Your task to perform on an android device: Open the calculator app Image 0: 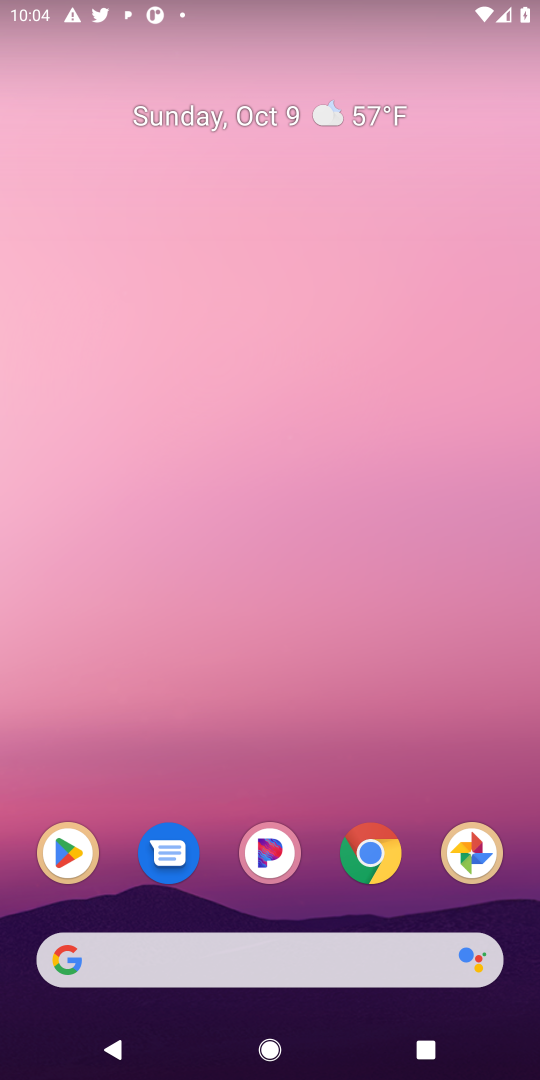
Step 0: drag from (290, 898) to (276, 63)
Your task to perform on an android device: Open the calculator app Image 1: 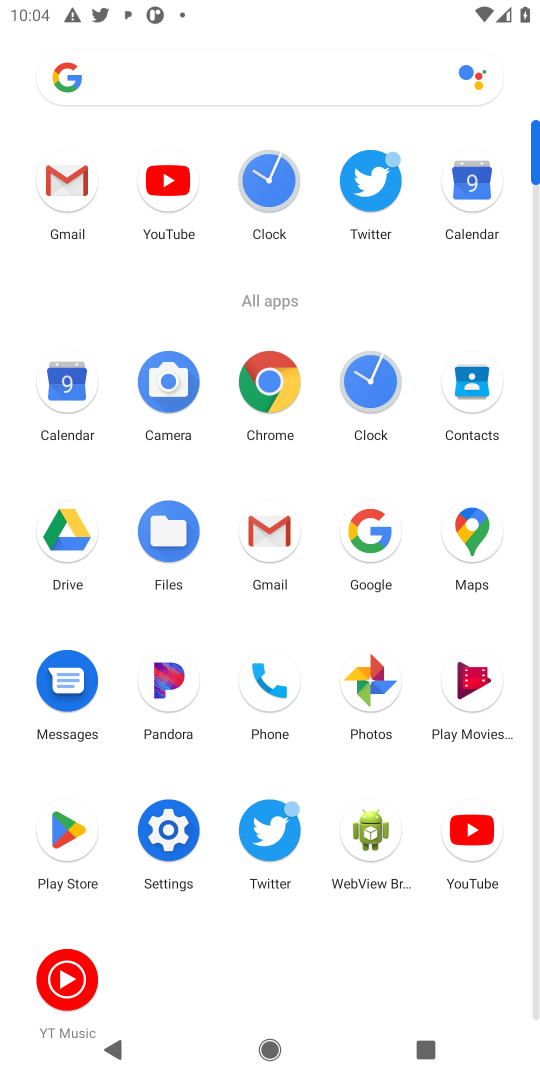
Step 1: drag from (291, 930) to (298, 882)
Your task to perform on an android device: Open the calculator app Image 2: 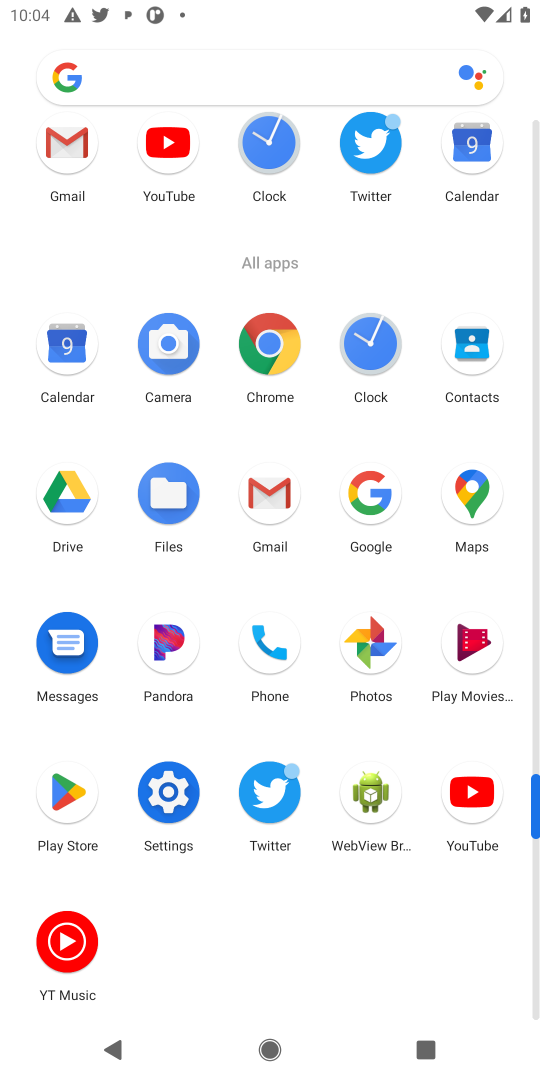
Step 2: click (82, 795)
Your task to perform on an android device: Open the calculator app Image 3: 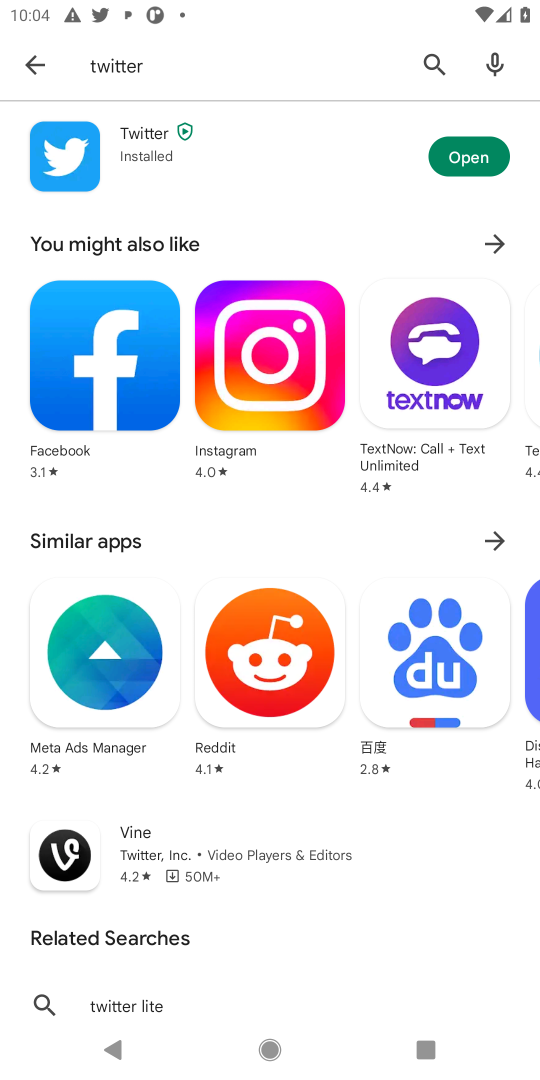
Step 3: click (432, 62)
Your task to perform on an android device: Open the calculator app Image 4: 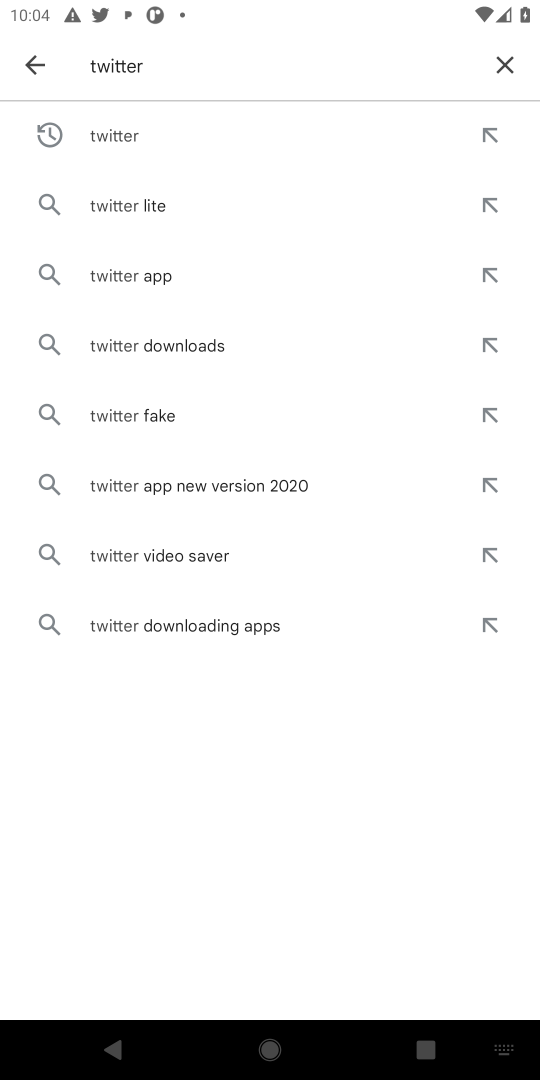
Step 4: click (504, 58)
Your task to perform on an android device: Open the calculator app Image 5: 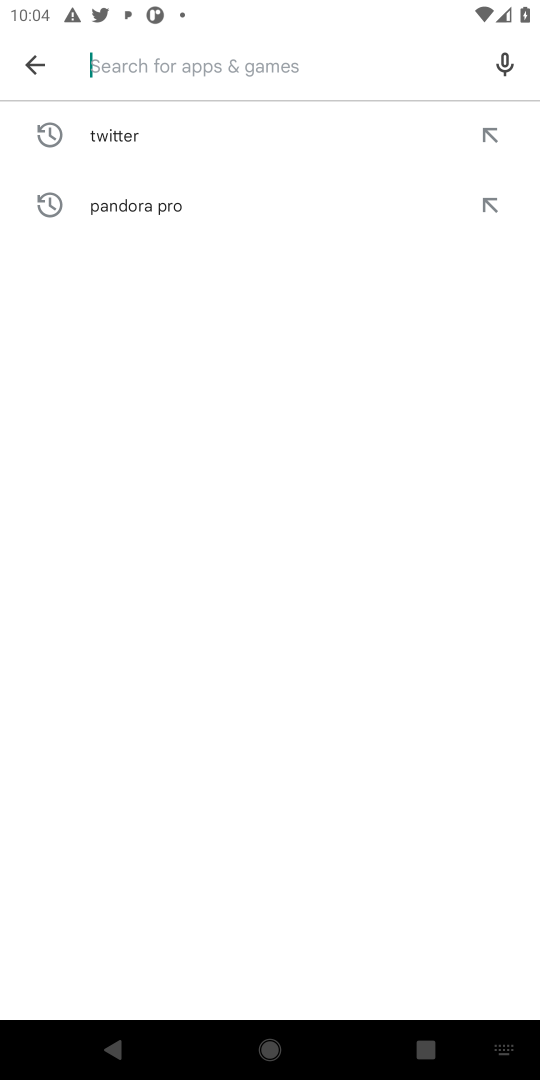
Step 5: click (311, 78)
Your task to perform on an android device: Open the calculator app Image 6: 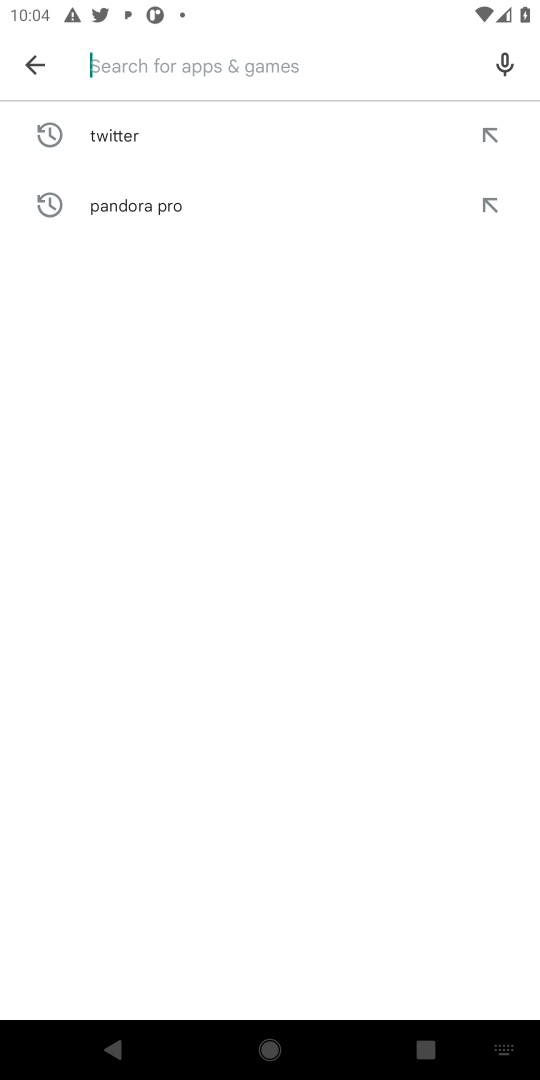
Step 6: type "calculator"
Your task to perform on an android device: Open the calculator app Image 7: 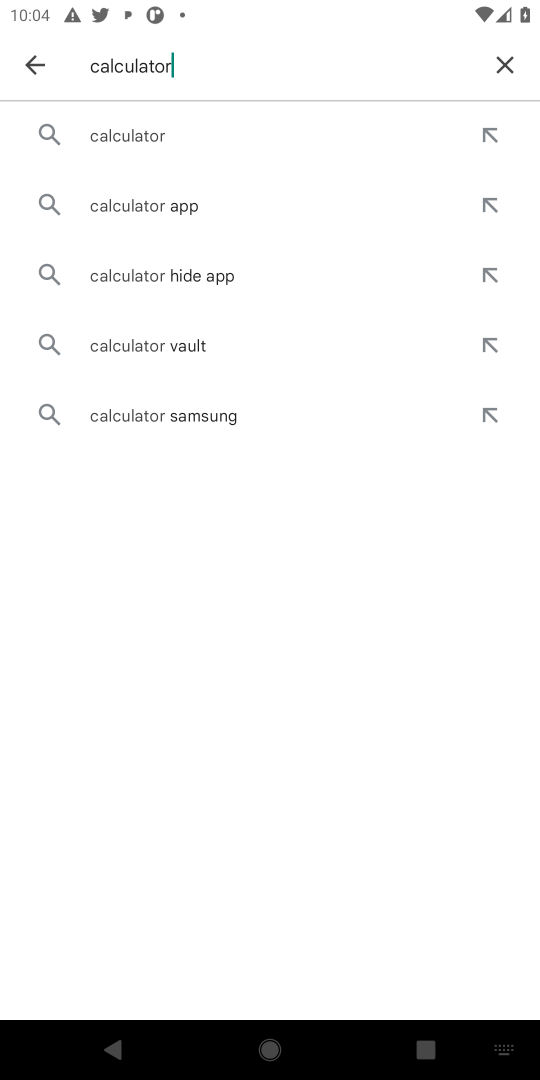
Step 7: type ""
Your task to perform on an android device: Open the calculator app Image 8: 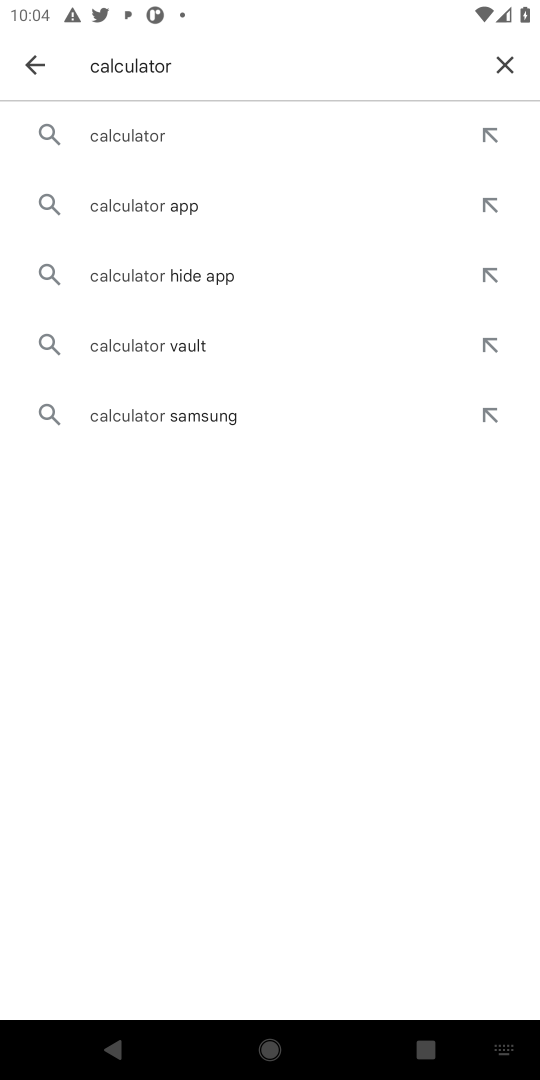
Step 8: click (148, 204)
Your task to perform on an android device: Open the calculator app Image 9: 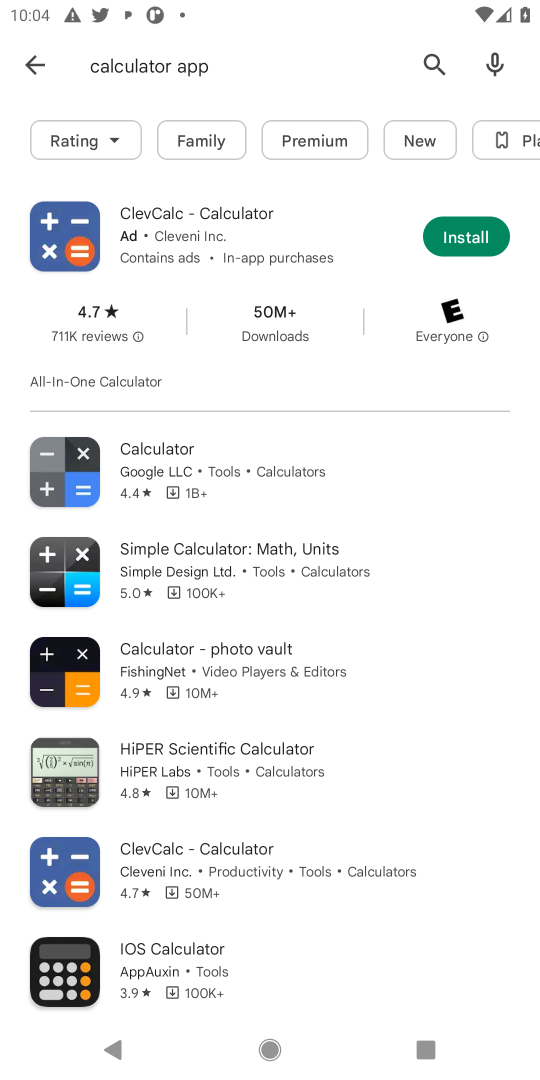
Step 9: click (205, 470)
Your task to perform on an android device: Open the calculator app Image 10: 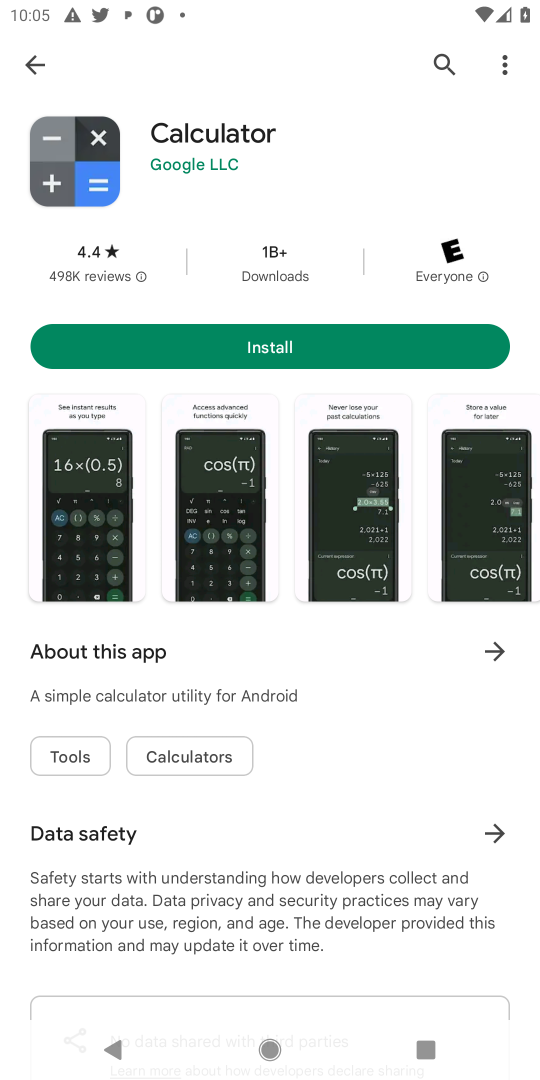
Step 10: click (255, 349)
Your task to perform on an android device: Open the calculator app Image 11: 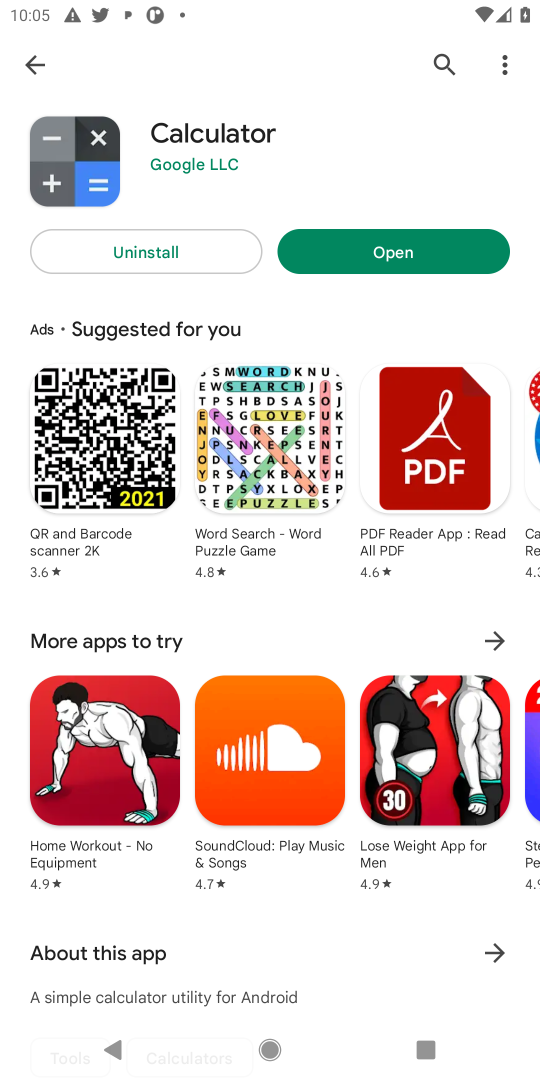
Step 11: click (409, 258)
Your task to perform on an android device: Open the calculator app Image 12: 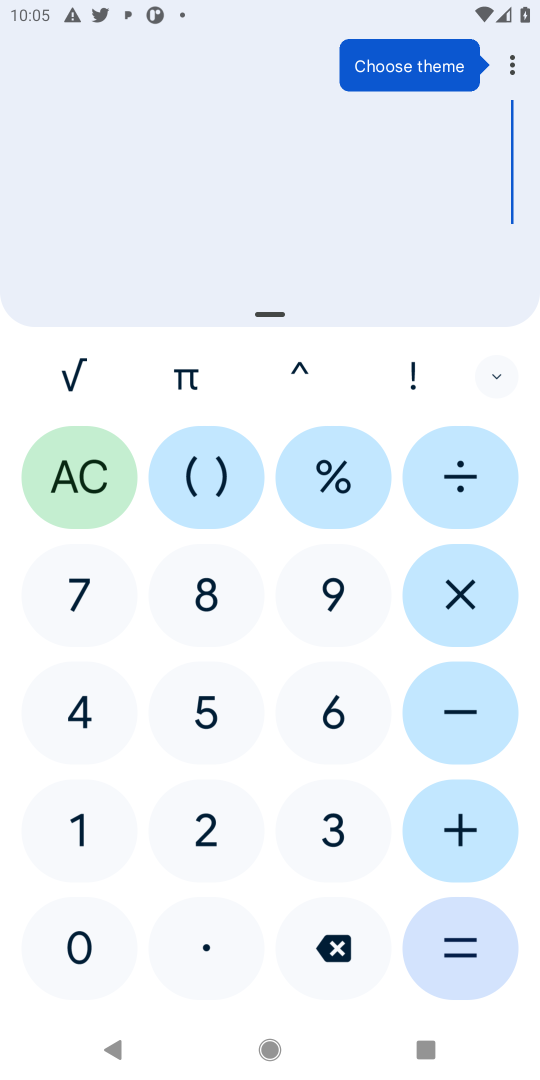
Step 12: click (194, 583)
Your task to perform on an android device: Open the calculator app Image 13: 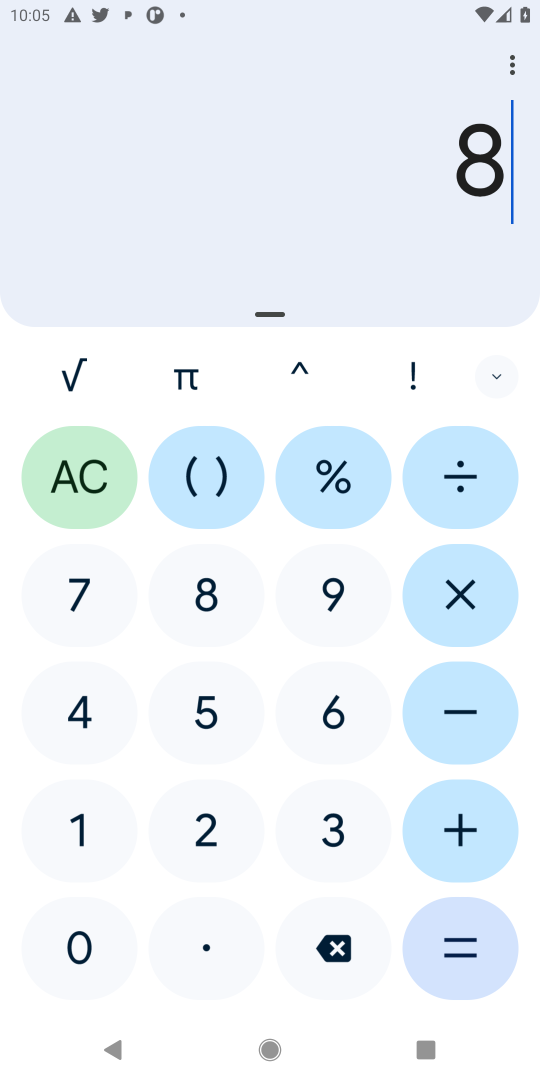
Step 13: click (496, 606)
Your task to perform on an android device: Open the calculator app Image 14: 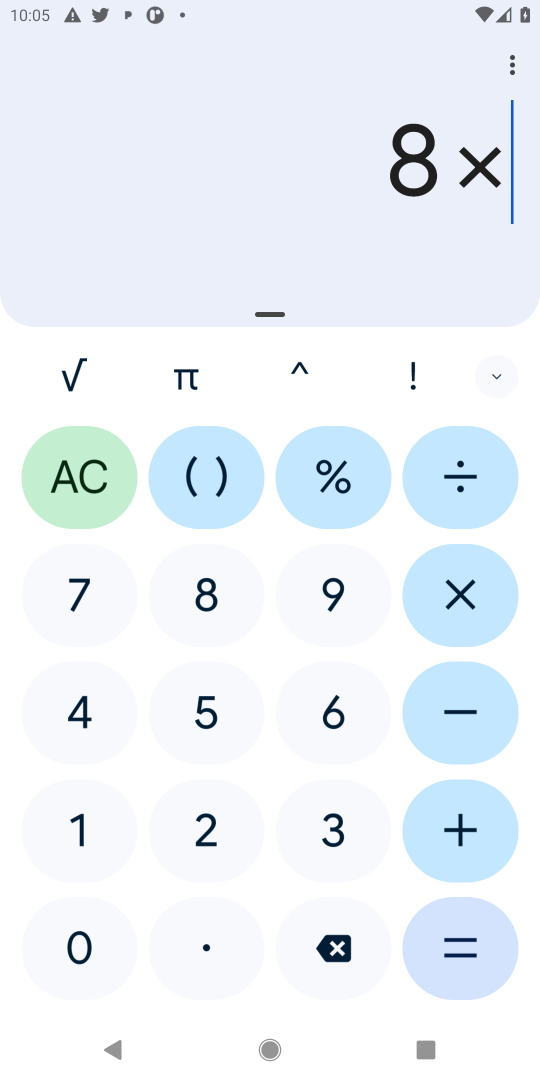
Step 14: click (348, 620)
Your task to perform on an android device: Open the calculator app Image 15: 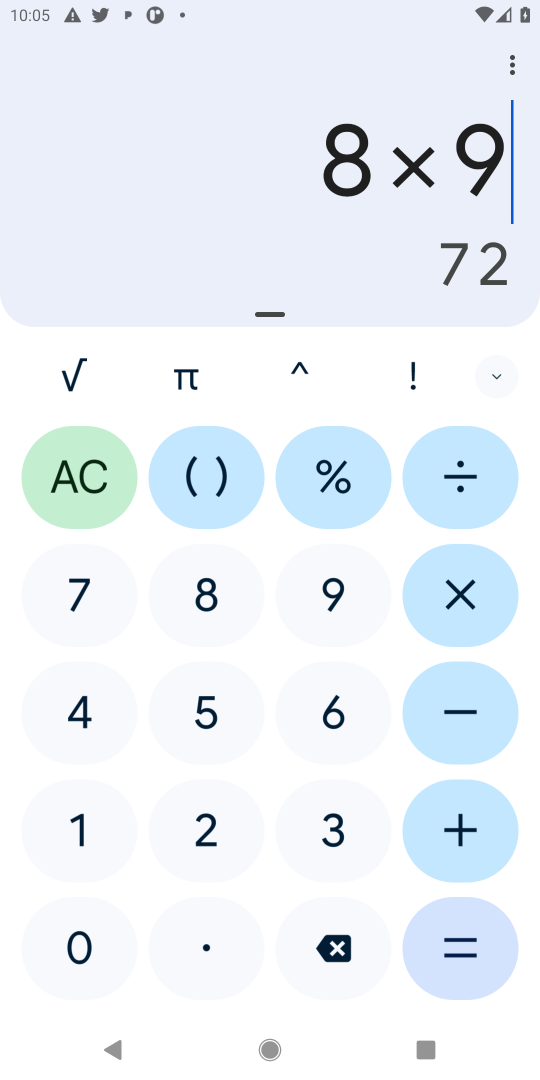
Step 15: click (452, 940)
Your task to perform on an android device: Open the calculator app Image 16: 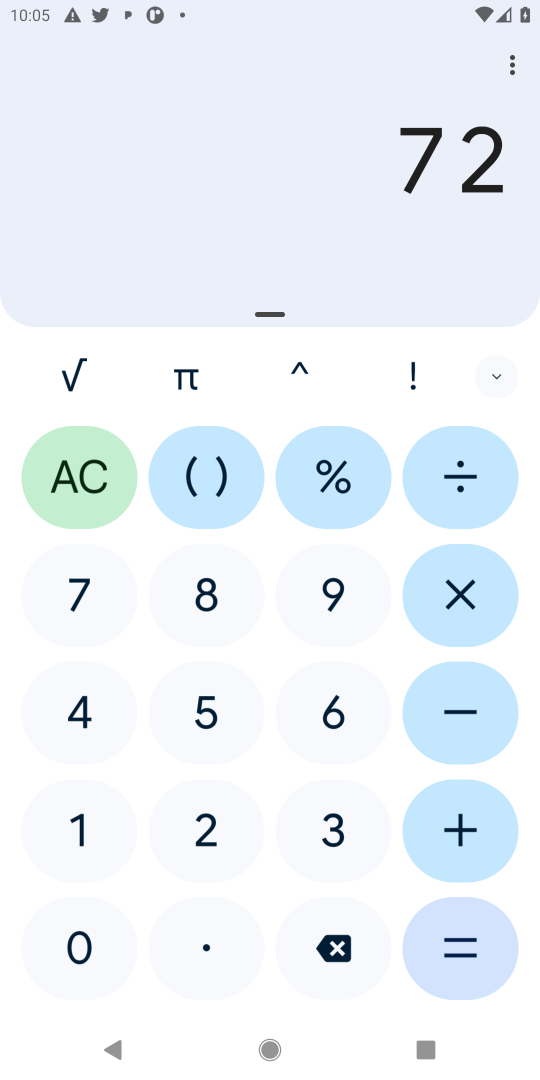
Step 16: click (352, 725)
Your task to perform on an android device: Open the calculator app Image 17: 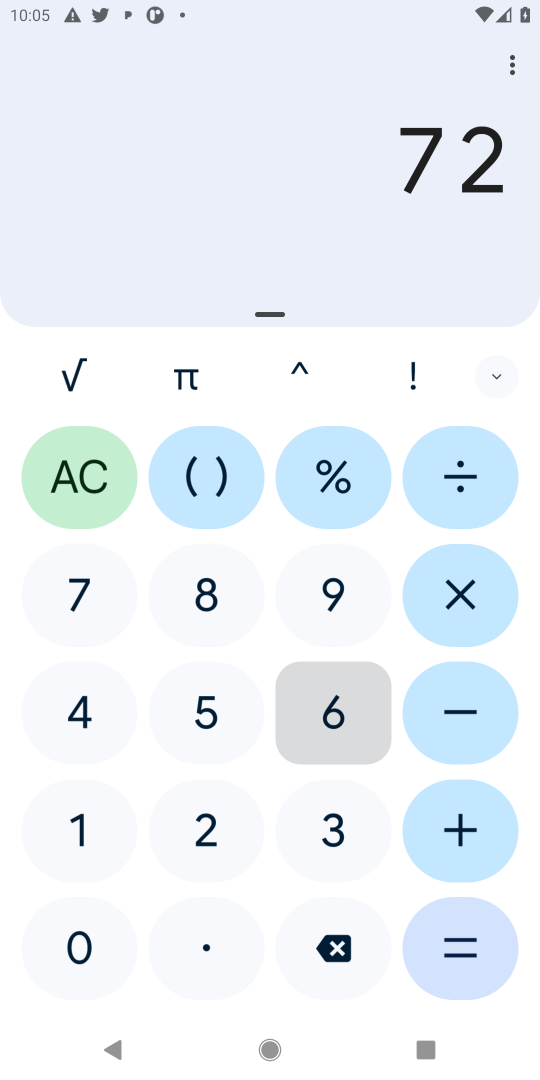
Step 17: click (476, 612)
Your task to perform on an android device: Open the calculator app Image 18: 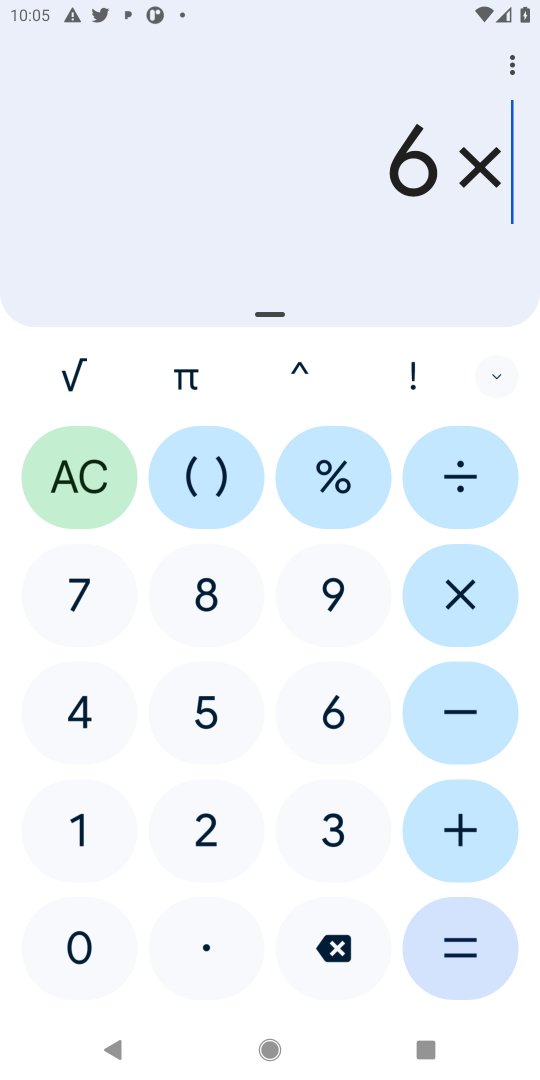
Step 18: click (335, 586)
Your task to perform on an android device: Open the calculator app Image 19: 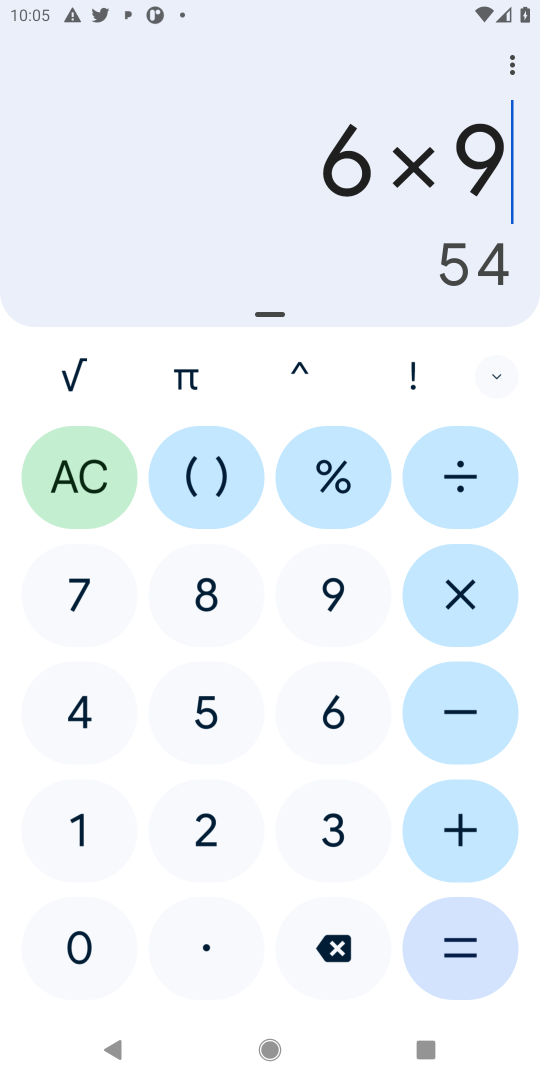
Step 19: click (464, 919)
Your task to perform on an android device: Open the calculator app Image 20: 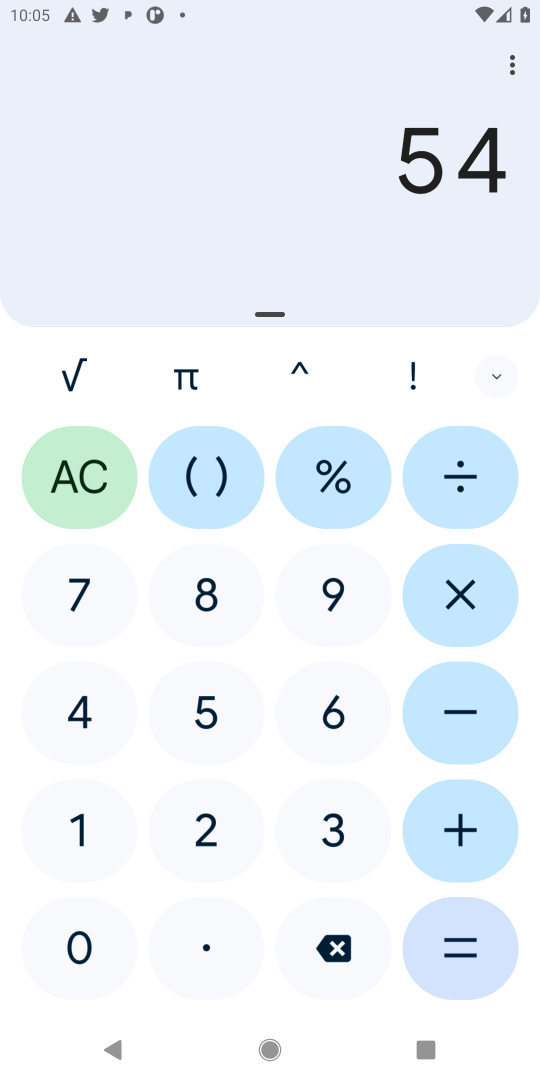
Step 20: click (55, 805)
Your task to perform on an android device: Open the calculator app Image 21: 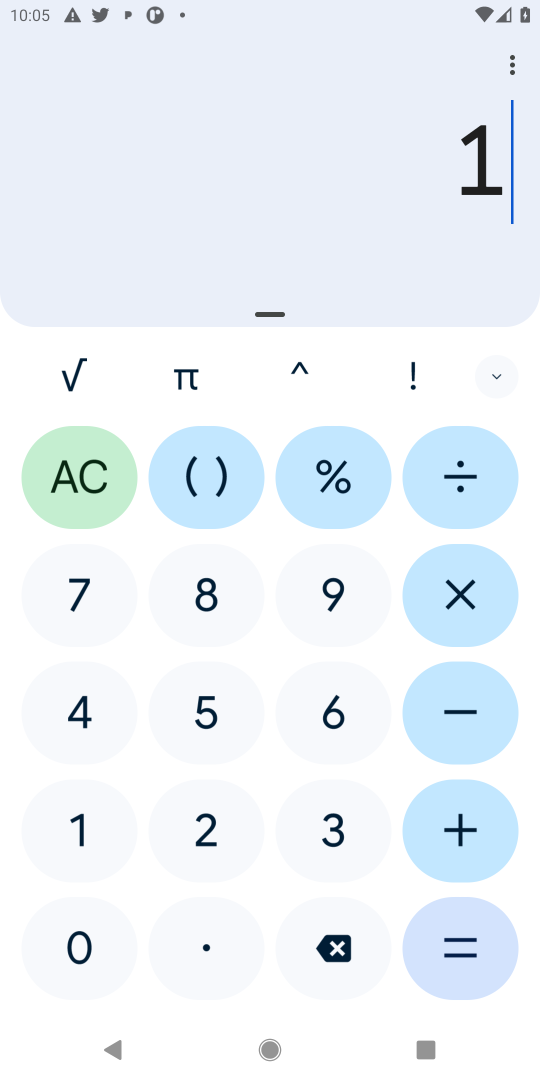
Step 21: click (326, 453)
Your task to perform on an android device: Open the calculator app Image 22: 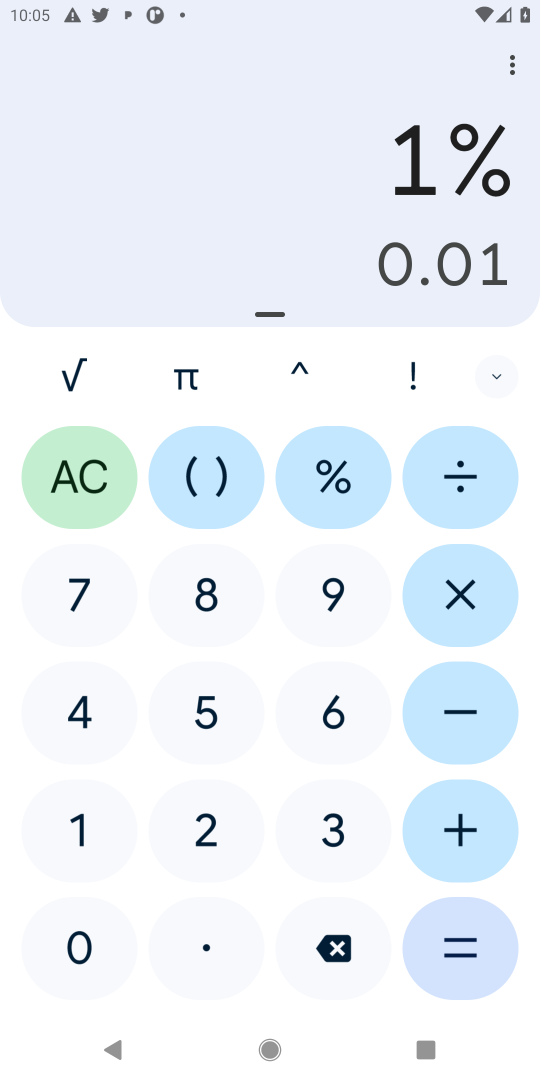
Step 22: click (475, 969)
Your task to perform on an android device: Open the calculator app Image 23: 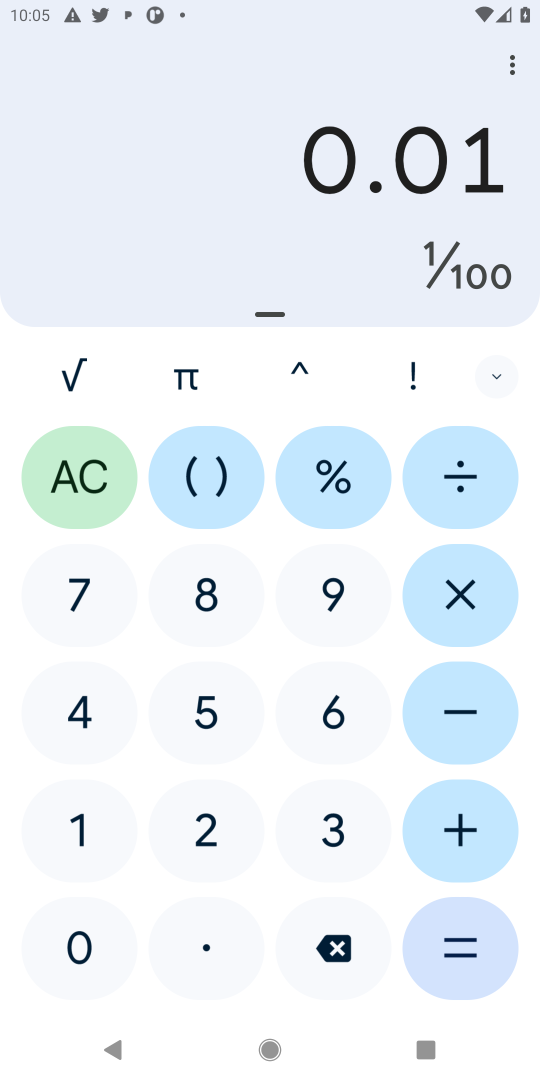
Step 23: drag from (257, 802) to (300, 441)
Your task to perform on an android device: Open the calculator app Image 24: 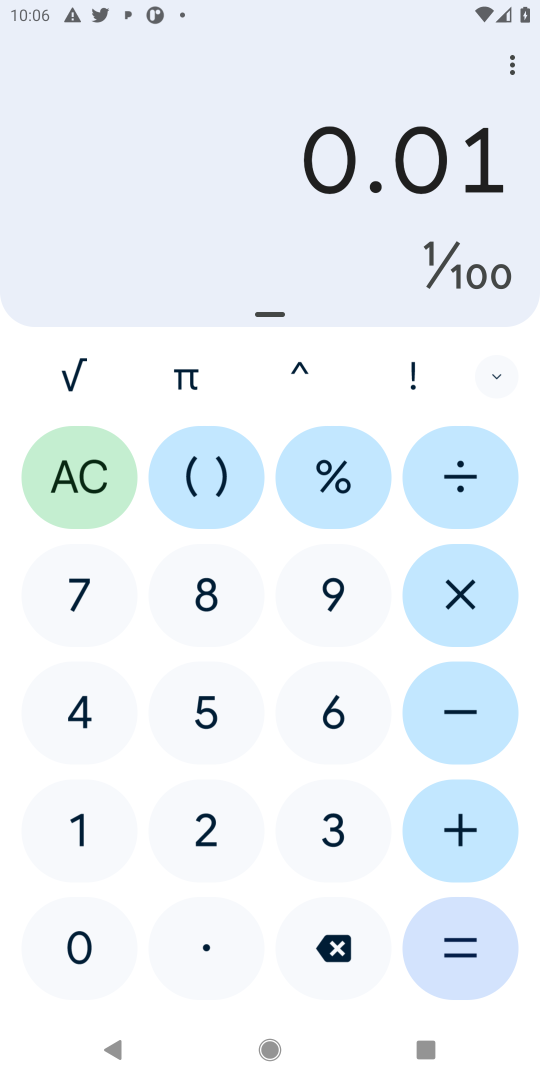
Step 24: press back button
Your task to perform on an android device: Open the calculator app Image 25: 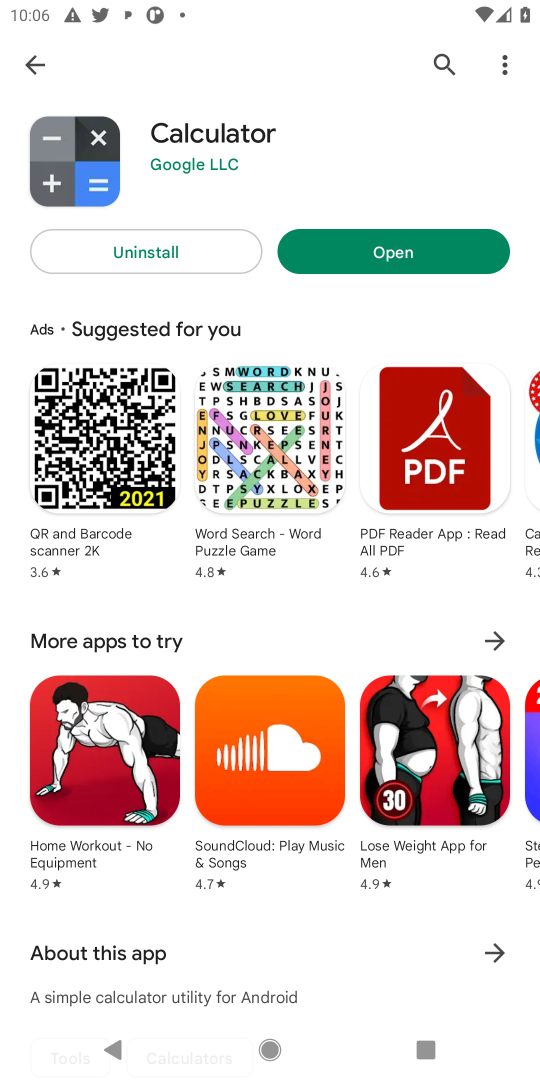
Step 25: click (373, 237)
Your task to perform on an android device: Open the calculator app Image 26: 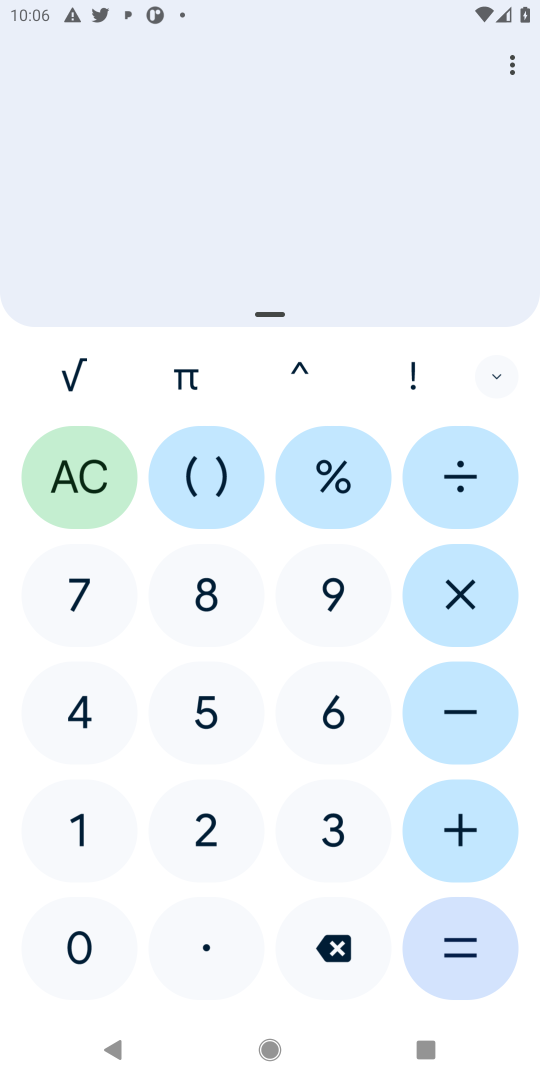
Step 26: click (356, 704)
Your task to perform on an android device: Open the calculator app Image 27: 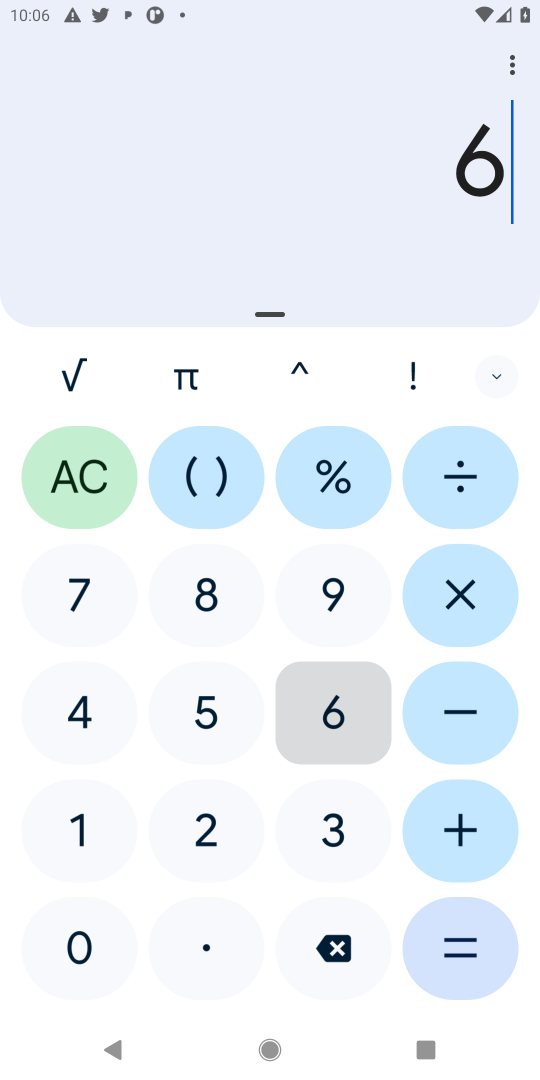
Step 27: click (452, 719)
Your task to perform on an android device: Open the calculator app Image 28: 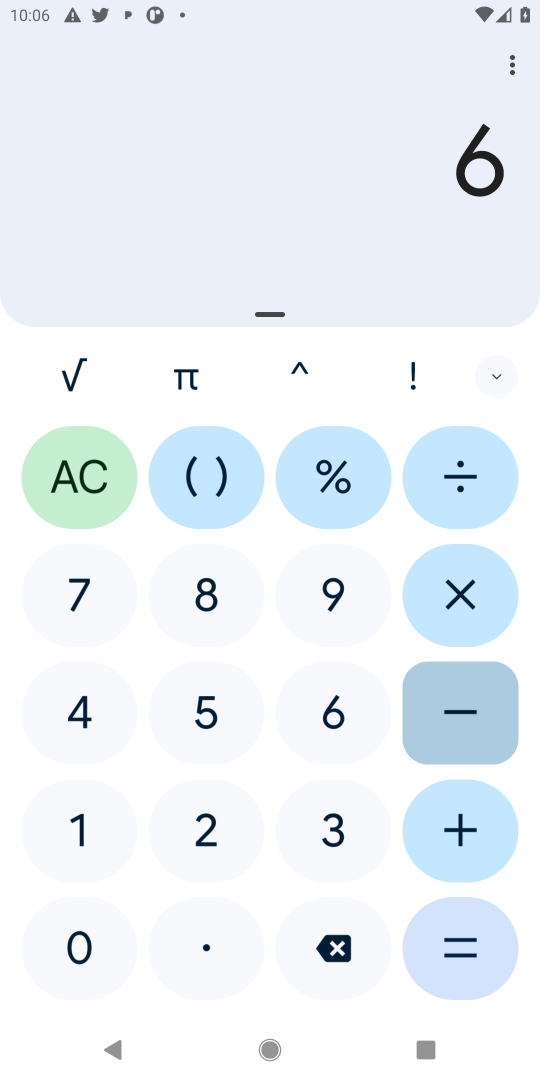
Step 28: click (276, 549)
Your task to perform on an android device: Open the calculator app Image 29: 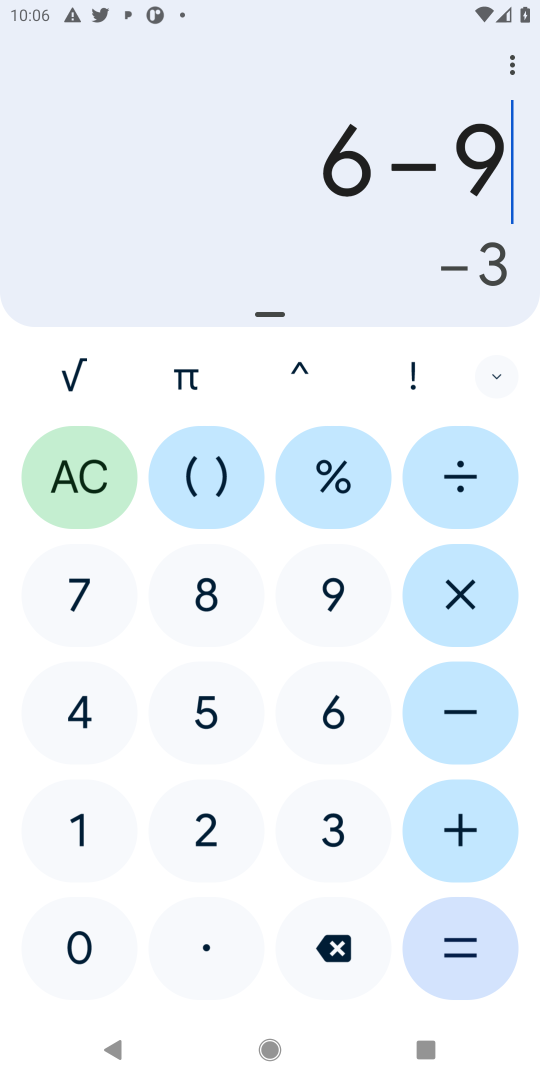
Step 29: click (213, 359)
Your task to perform on an android device: Open the calculator app Image 30: 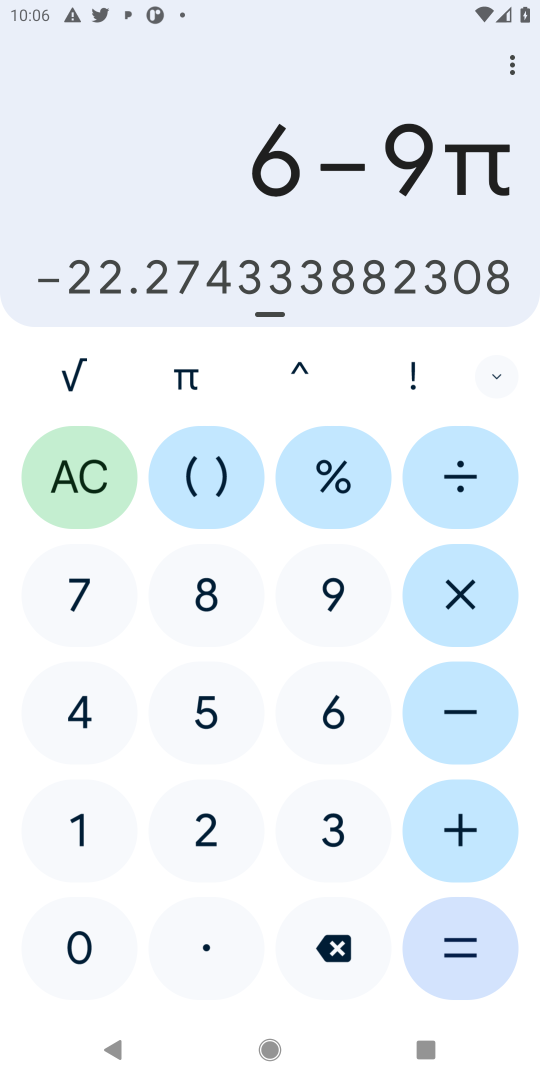
Step 30: task complete